Your task to perform on an android device: Open ESPN.com Image 0: 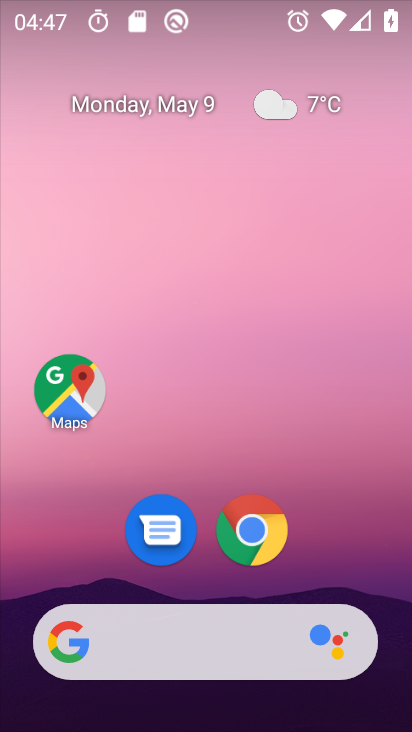
Step 0: click (257, 521)
Your task to perform on an android device: Open ESPN.com Image 1: 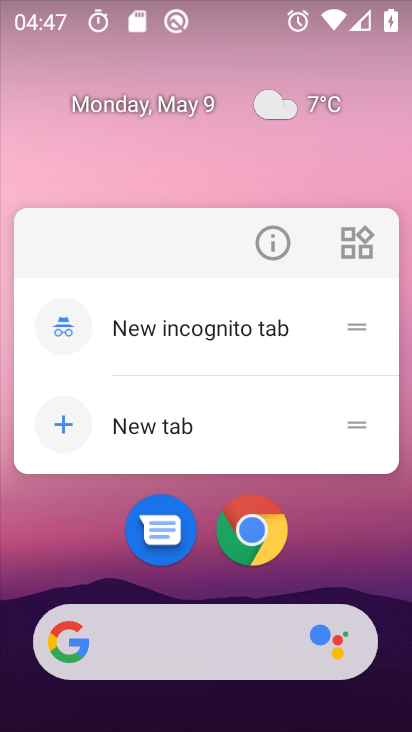
Step 1: click (250, 542)
Your task to perform on an android device: Open ESPN.com Image 2: 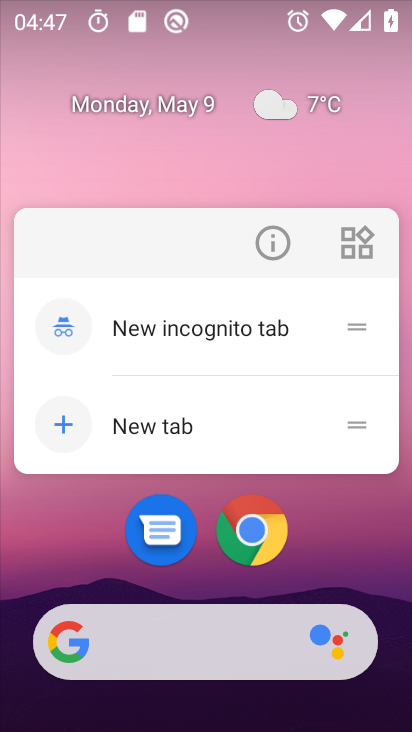
Step 2: click (248, 524)
Your task to perform on an android device: Open ESPN.com Image 3: 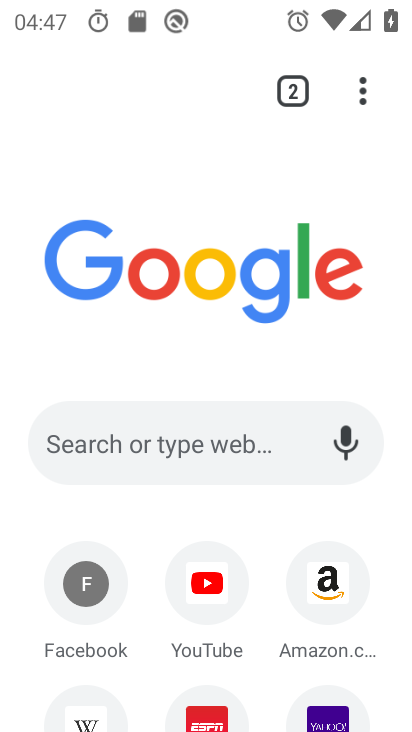
Step 3: click (204, 717)
Your task to perform on an android device: Open ESPN.com Image 4: 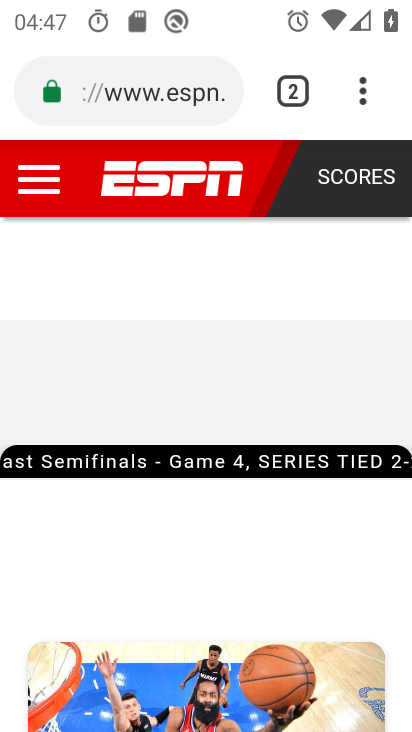
Step 4: task complete